Your task to perform on an android device: delete browsing data in the chrome app Image 0: 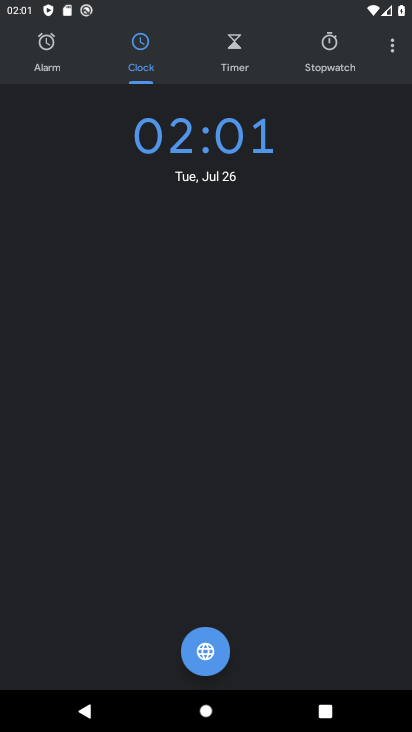
Step 0: press home button
Your task to perform on an android device: delete browsing data in the chrome app Image 1: 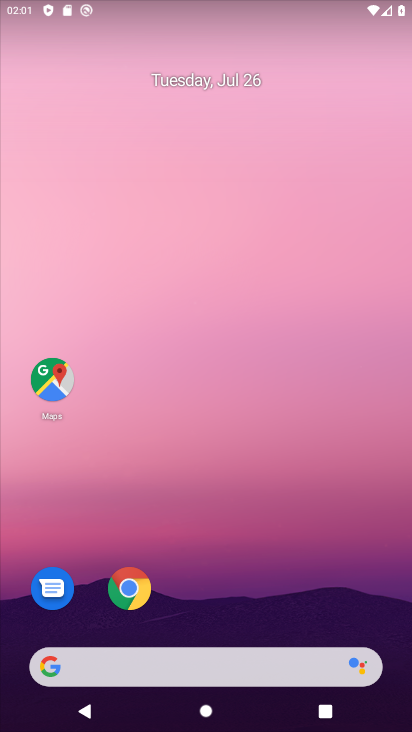
Step 1: drag from (314, 624) to (220, 312)
Your task to perform on an android device: delete browsing data in the chrome app Image 2: 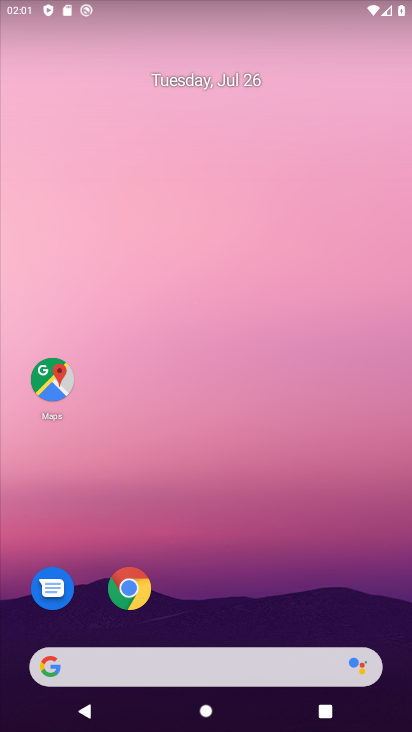
Step 2: click (143, 588)
Your task to perform on an android device: delete browsing data in the chrome app Image 3: 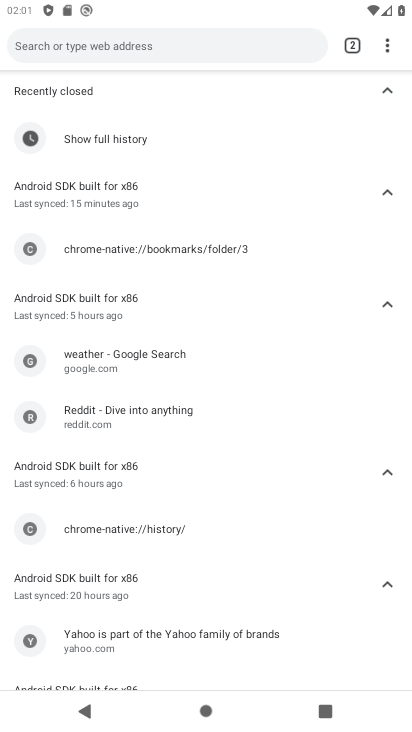
Step 3: click (389, 40)
Your task to perform on an android device: delete browsing data in the chrome app Image 4: 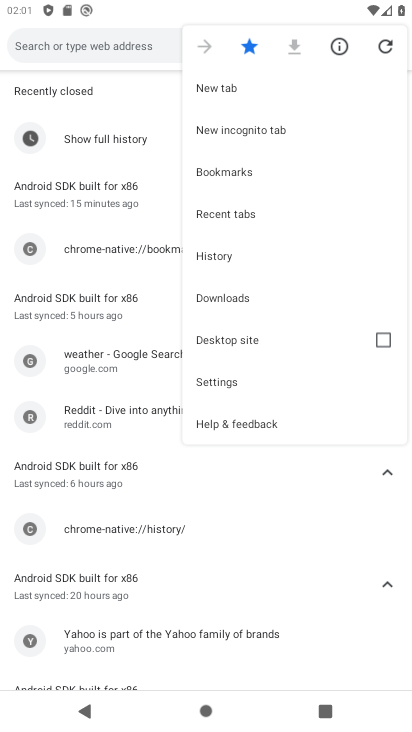
Step 4: click (225, 260)
Your task to perform on an android device: delete browsing data in the chrome app Image 5: 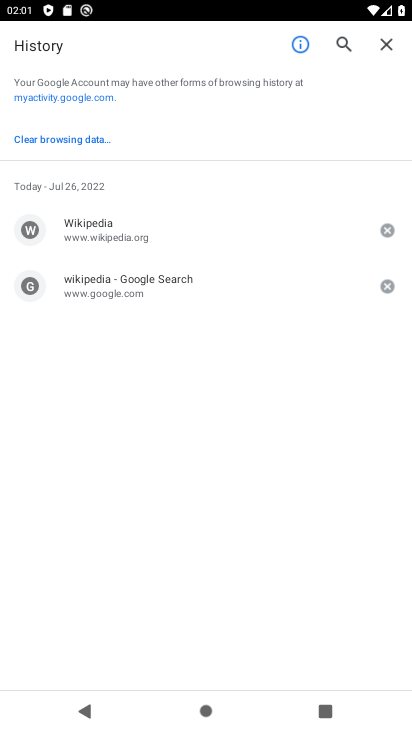
Step 5: click (83, 141)
Your task to perform on an android device: delete browsing data in the chrome app Image 6: 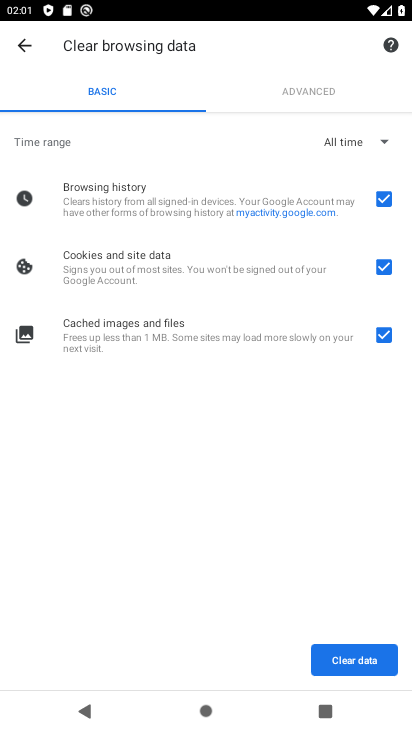
Step 6: click (354, 667)
Your task to perform on an android device: delete browsing data in the chrome app Image 7: 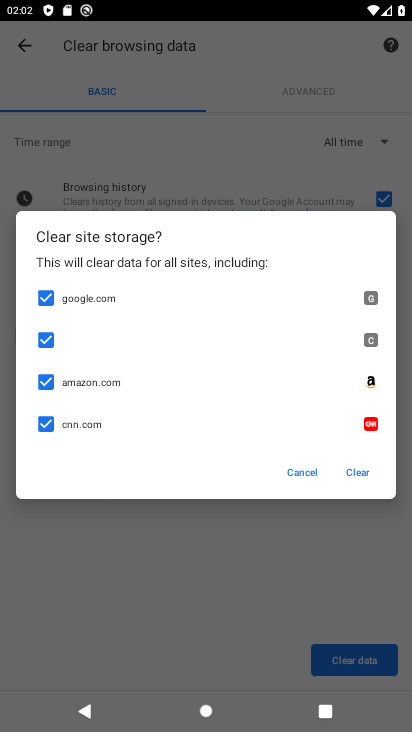
Step 7: click (363, 471)
Your task to perform on an android device: delete browsing data in the chrome app Image 8: 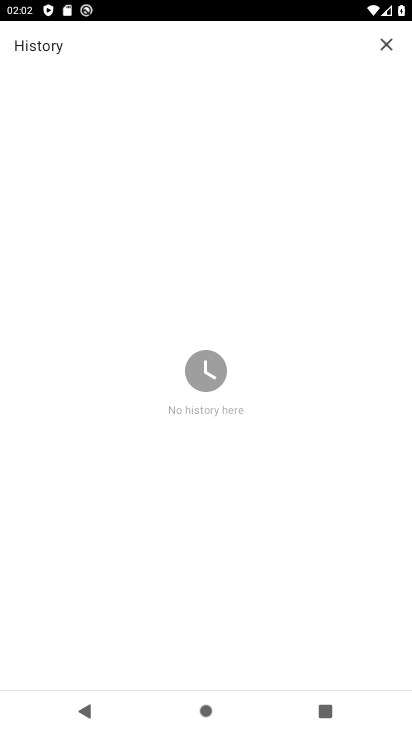
Step 8: task complete